Your task to perform on an android device: open a new tab in the chrome app Image 0: 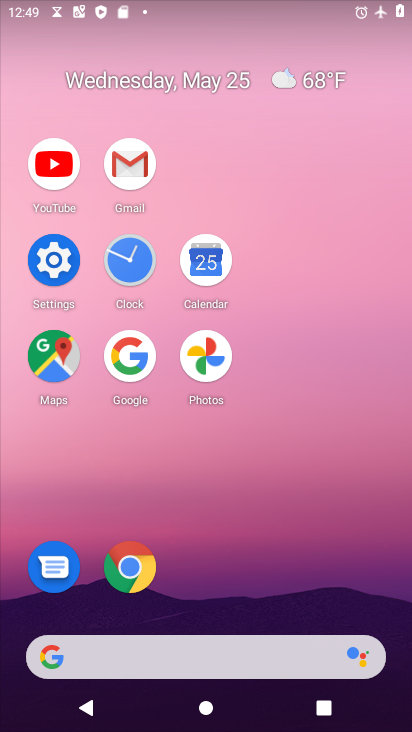
Step 0: click (144, 556)
Your task to perform on an android device: open a new tab in the chrome app Image 1: 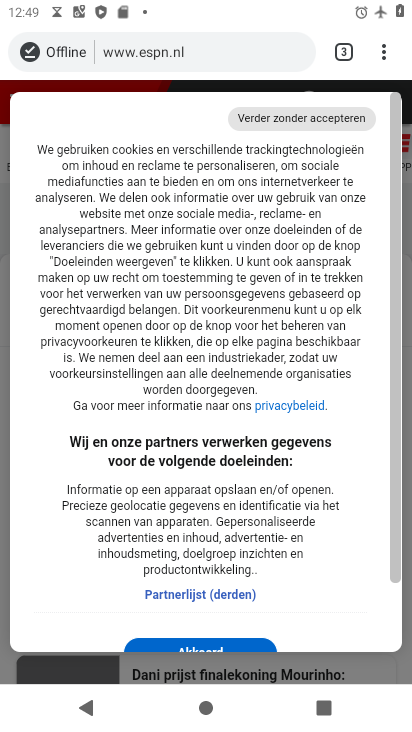
Step 1: click (356, 50)
Your task to perform on an android device: open a new tab in the chrome app Image 2: 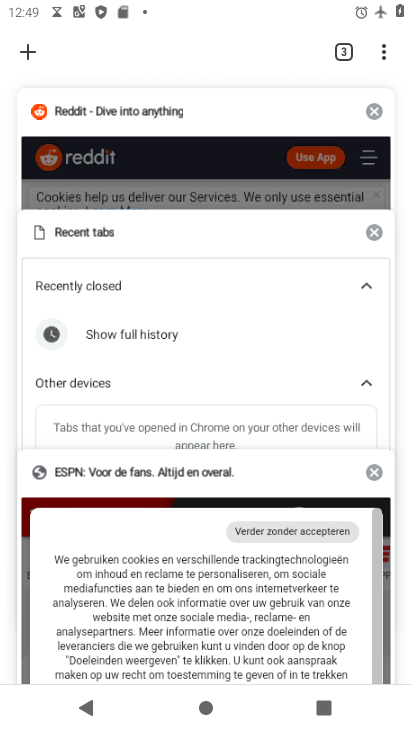
Step 2: click (24, 46)
Your task to perform on an android device: open a new tab in the chrome app Image 3: 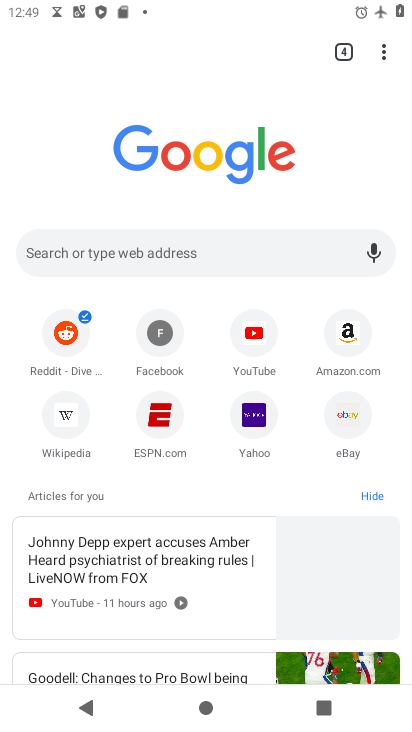
Step 3: task complete